Your task to perform on an android device: toggle show notifications on the lock screen Image 0: 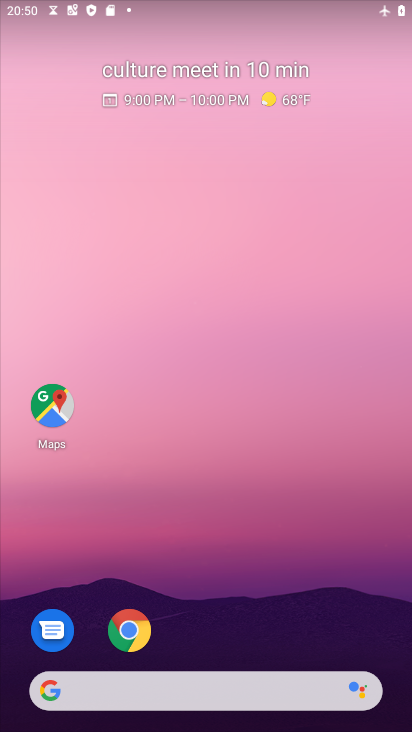
Step 0: drag from (282, 589) to (257, 195)
Your task to perform on an android device: toggle show notifications on the lock screen Image 1: 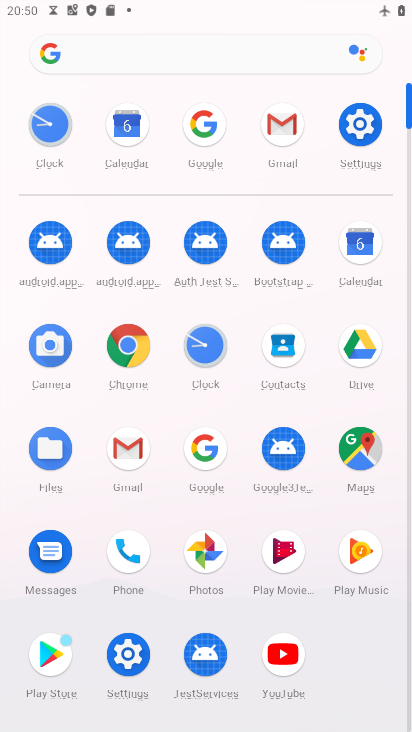
Step 1: click (363, 120)
Your task to perform on an android device: toggle show notifications on the lock screen Image 2: 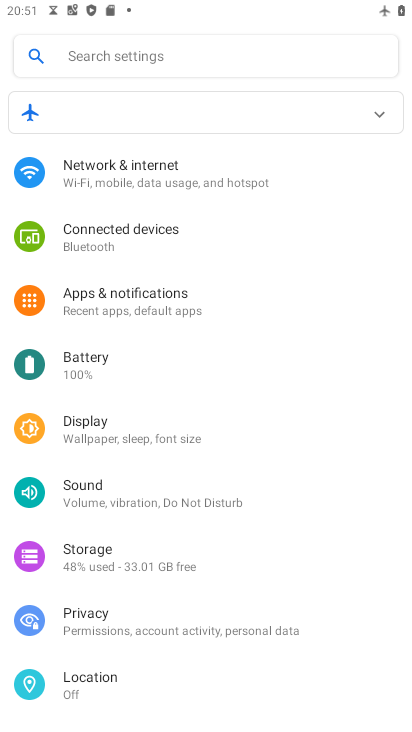
Step 2: click (150, 315)
Your task to perform on an android device: toggle show notifications on the lock screen Image 3: 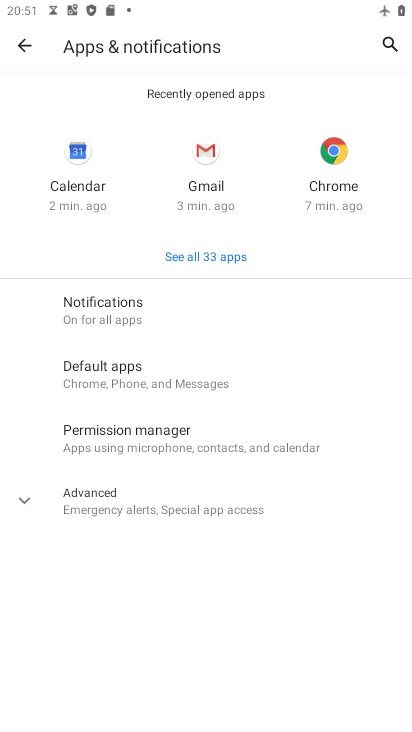
Step 3: click (105, 304)
Your task to perform on an android device: toggle show notifications on the lock screen Image 4: 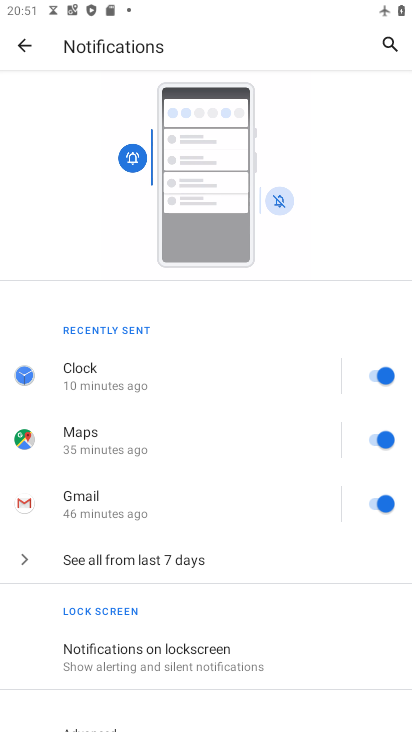
Step 4: drag from (168, 535) to (169, 379)
Your task to perform on an android device: toggle show notifications on the lock screen Image 5: 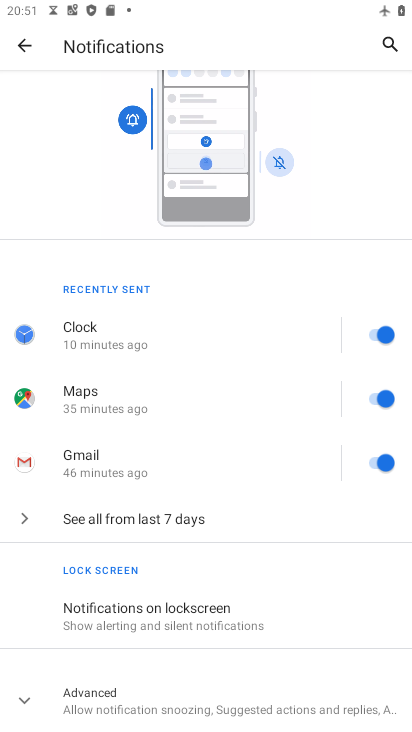
Step 5: drag from (173, 578) to (181, 436)
Your task to perform on an android device: toggle show notifications on the lock screen Image 6: 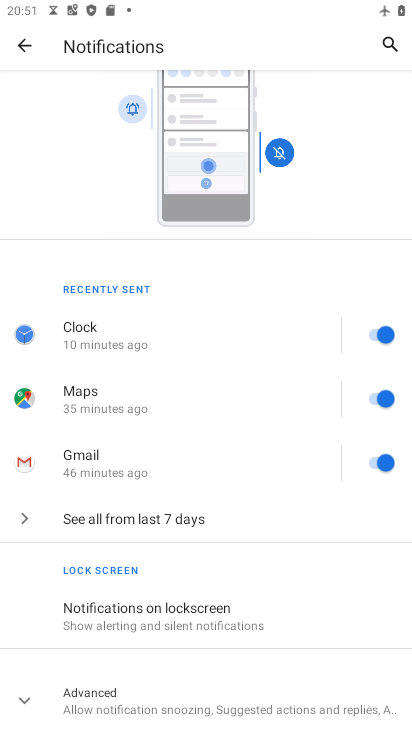
Step 6: click (160, 600)
Your task to perform on an android device: toggle show notifications on the lock screen Image 7: 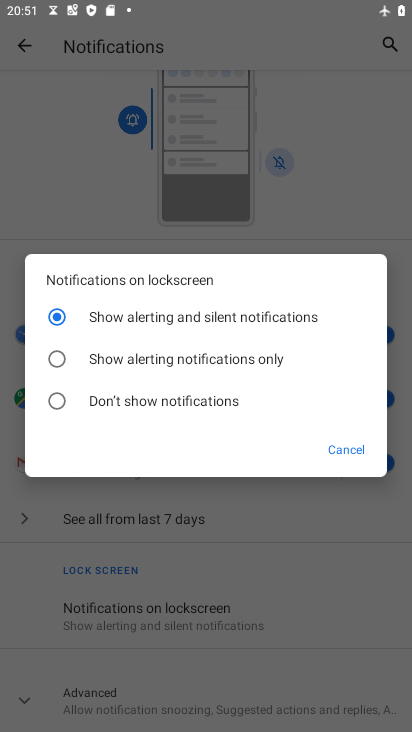
Step 7: click (60, 403)
Your task to perform on an android device: toggle show notifications on the lock screen Image 8: 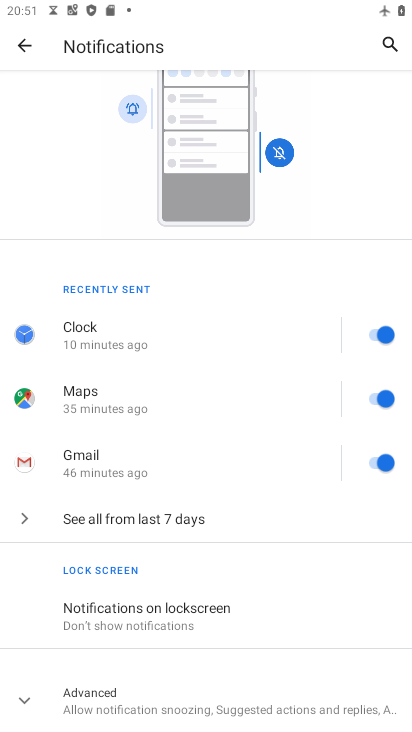
Step 8: task complete